Your task to perform on an android device: toggle wifi Image 0: 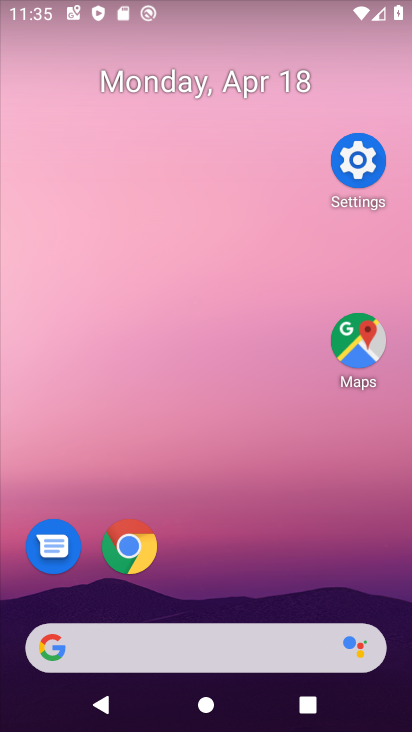
Step 0: drag from (204, 275) to (162, 175)
Your task to perform on an android device: toggle wifi Image 1: 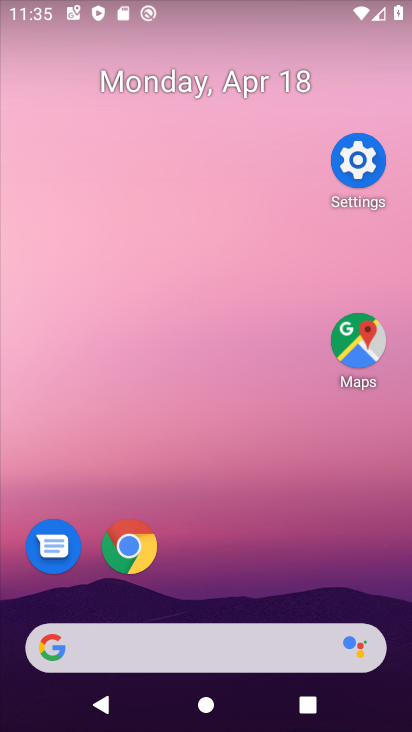
Step 1: drag from (265, 557) to (118, 298)
Your task to perform on an android device: toggle wifi Image 2: 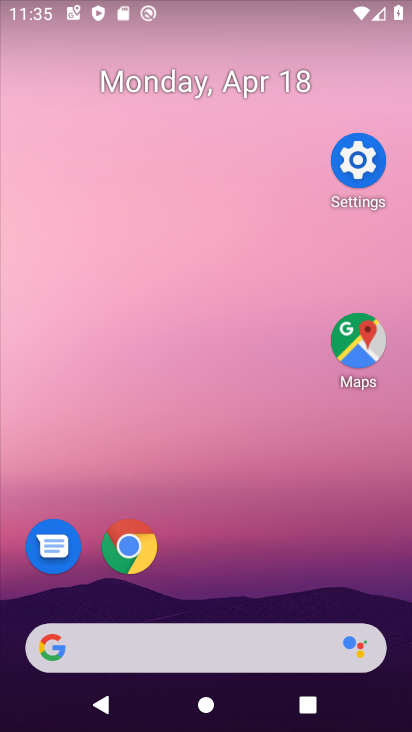
Step 2: click (152, 114)
Your task to perform on an android device: toggle wifi Image 3: 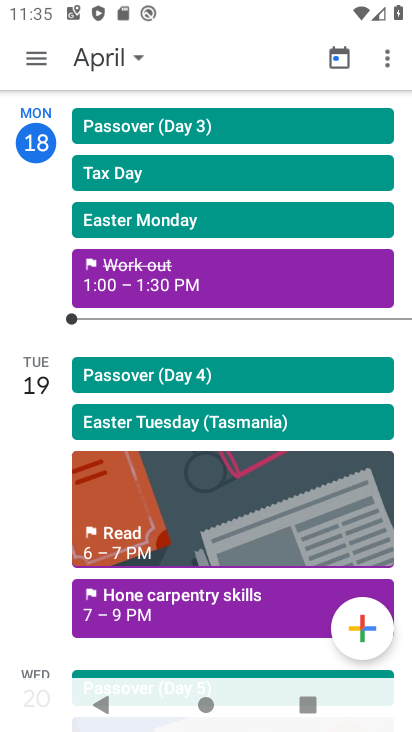
Step 3: press home button
Your task to perform on an android device: toggle wifi Image 4: 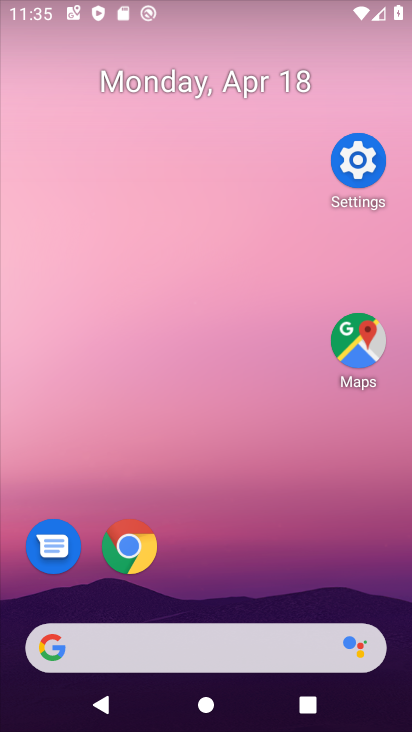
Step 4: drag from (295, 552) to (162, 285)
Your task to perform on an android device: toggle wifi Image 5: 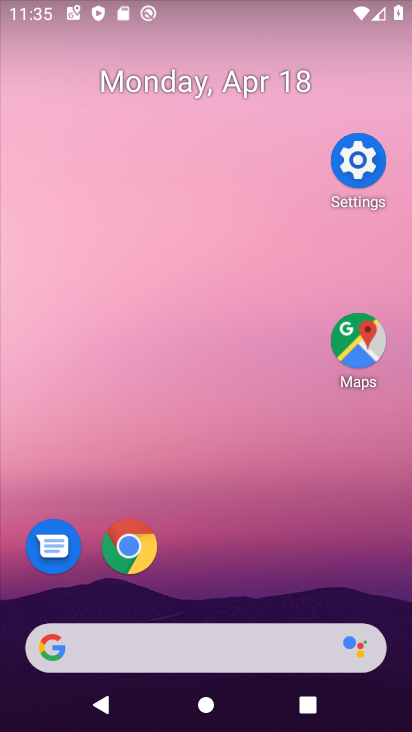
Step 5: click (147, 355)
Your task to perform on an android device: toggle wifi Image 6: 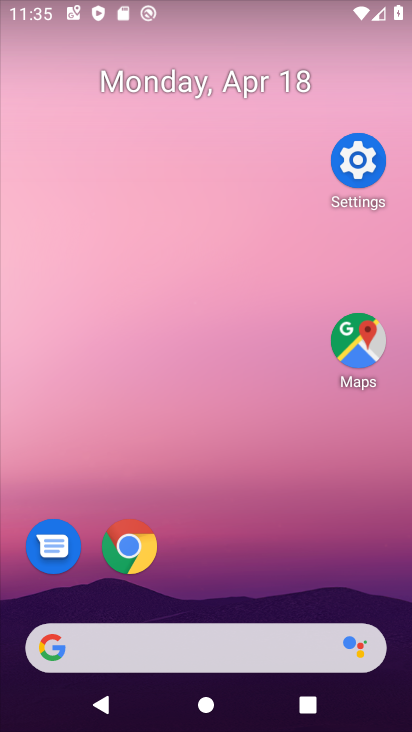
Step 6: drag from (349, 596) to (204, 284)
Your task to perform on an android device: toggle wifi Image 7: 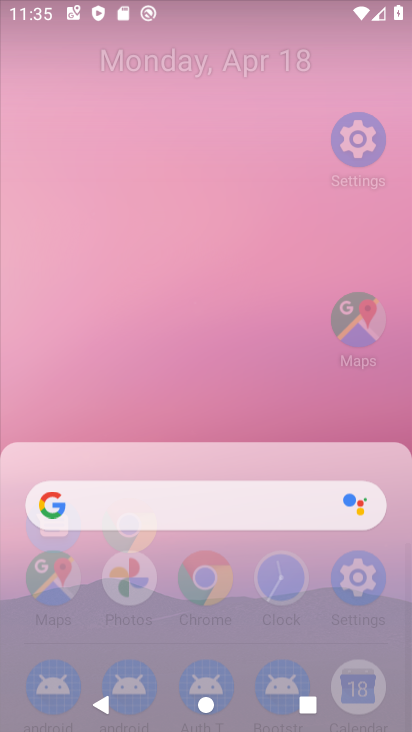
Step 7: drag from (356, 535) to (172, 139)
Your task to perform on an android device: toggle wifi Image 8: 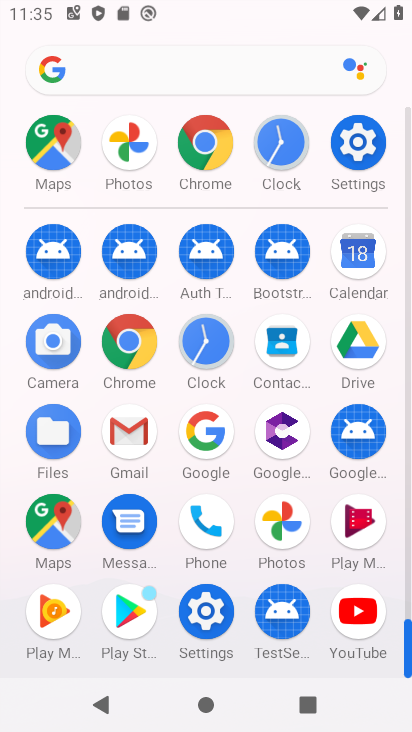
Step 8: click (352, 131)
Your task to perform on an android device: toggle wifi Image 9: 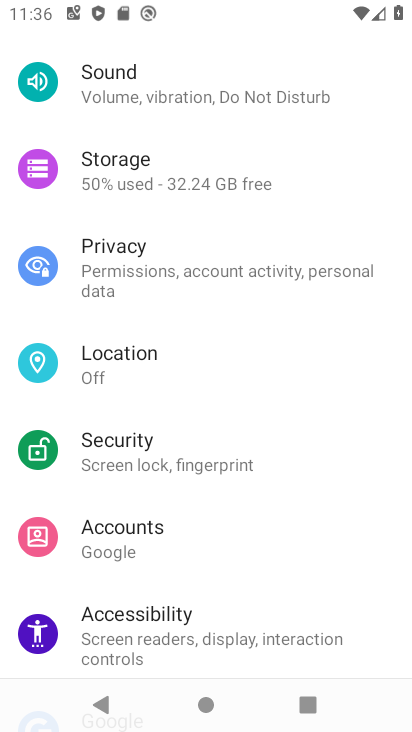
Step 9: drag from (206, 508) to (223, 286)
Your task to perform on an android device: toggle wifi Image 10: 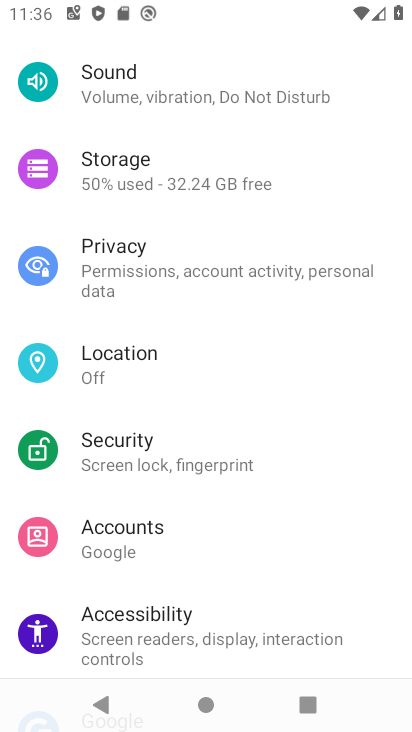
Step 10: drag from (148, 515) to (124, 413)
Your task to perform on an android device: toggle wifi Image 11: 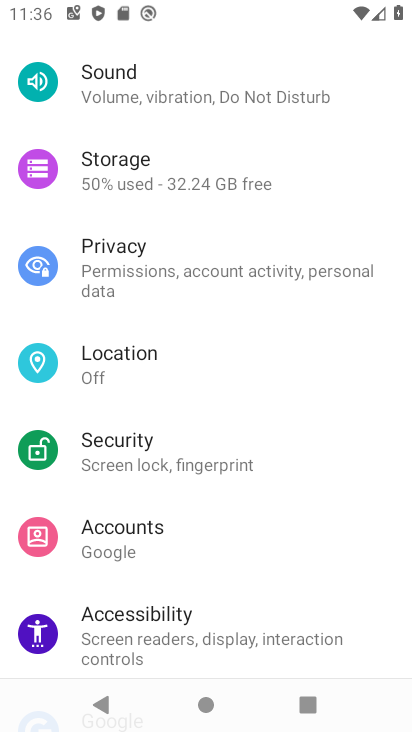
Step 11: drag from (138, 150) to (335, 626)
Your task to perform on an android device: toggle wifi Image 12: 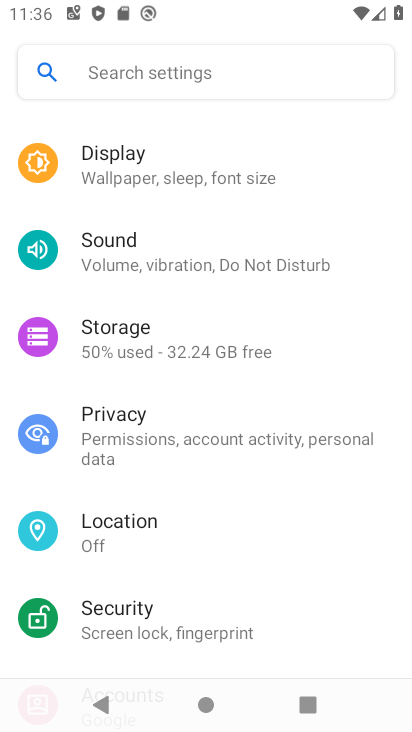
Step 12: drag from (302, 568) to (231, 447)
Your task to perform on an android device: toggle wifi Image 13: 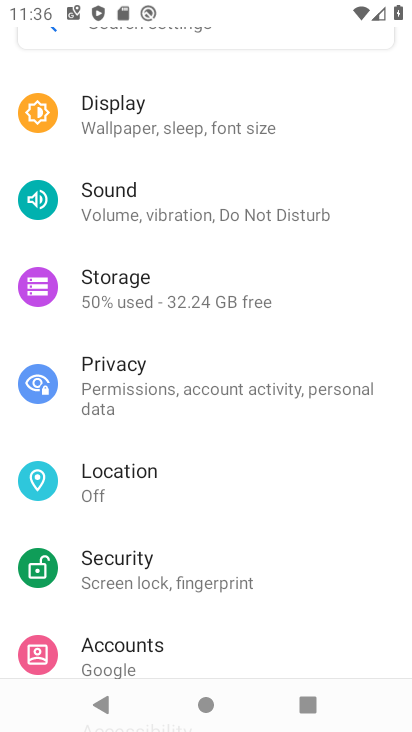
Step 13: drag from (131, 117) to (162, 664)
Your task to perform on an android device: toggle wifi Image 14: 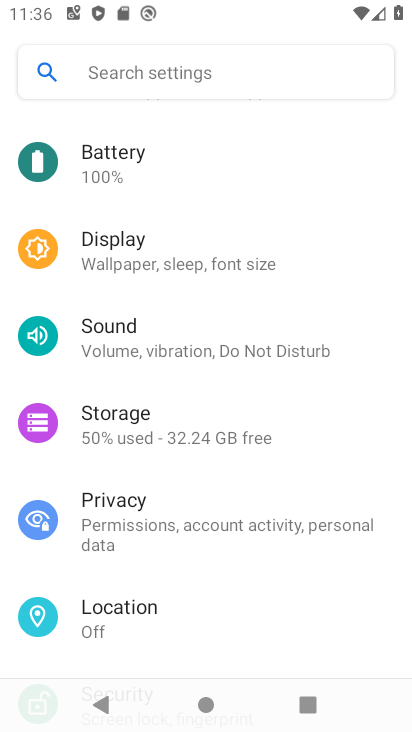
Step 14: drag from (254, 425) to (267, 493)
Your task to perform on an android device: toggle wifi Image 15: 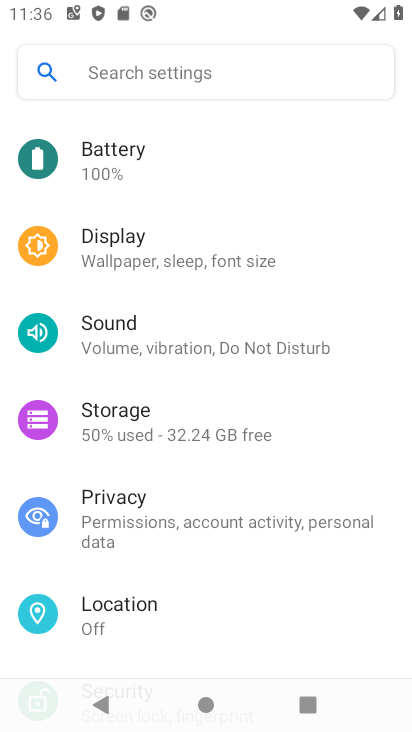
Step 15: drag from (291, 427) to (301, 612)
Your task to perform on an android device: toggle wifi Image 16: 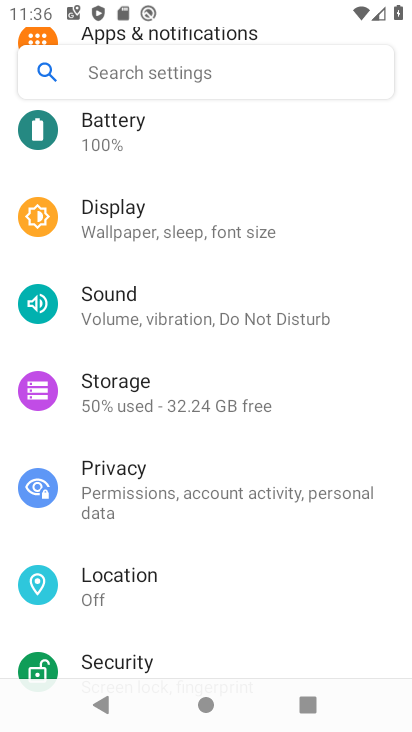
Step 16: drag from (178, 238) to (269, 727)
Your task to perform on an android device: toggle wifi Image 17: 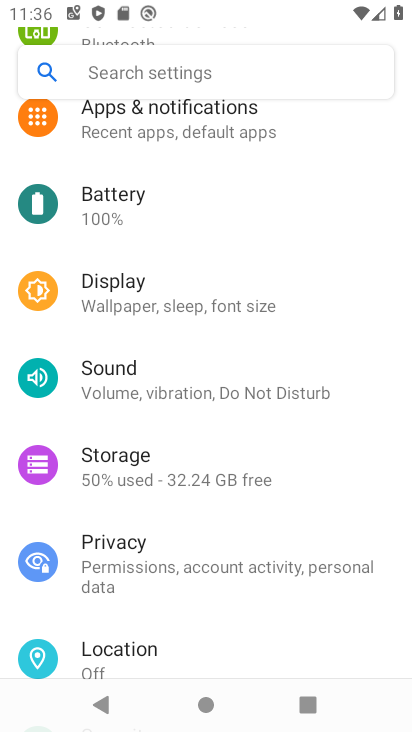
Step 17: drag from (251, 473) to (323, 716)
Your task to perform on an android device: toggle wifi Image 18: 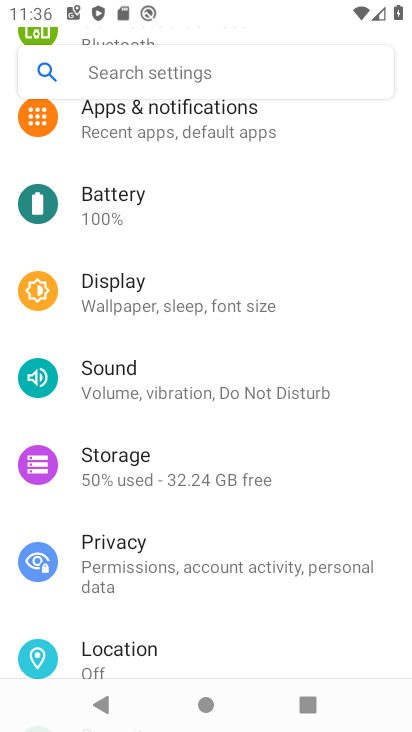
Step 18: click (196, 123)
Your task to perform on an android device: toggle wifi Image 19: 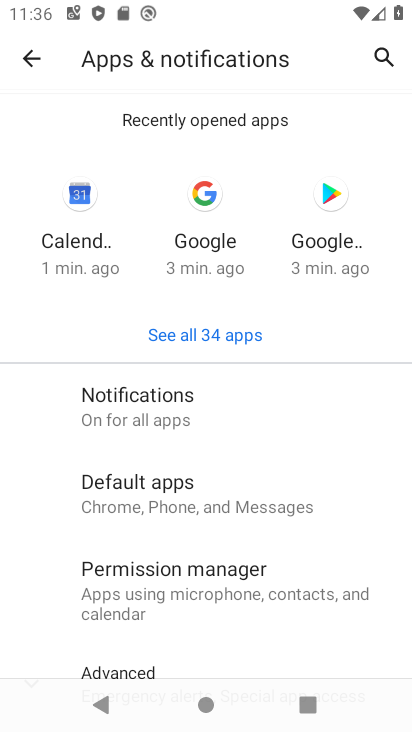
Step 19: click (38, 62)
Your task to perform on an android device: toggle wifi Image 20: 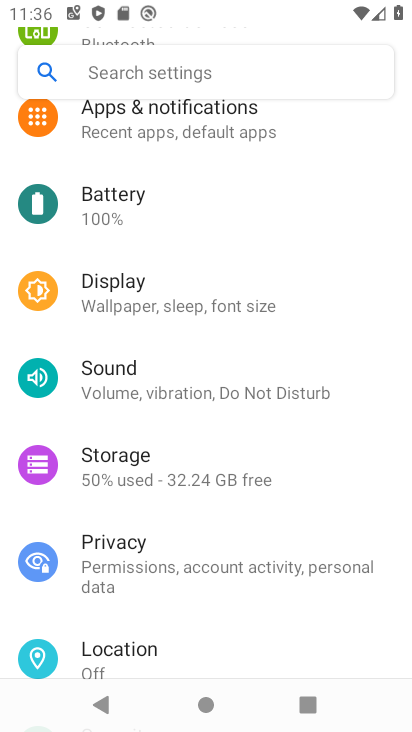
Step 20: drag from (206, 360) to (239, 549)
Your task to perform on an android device: toggle wifi Image 21: 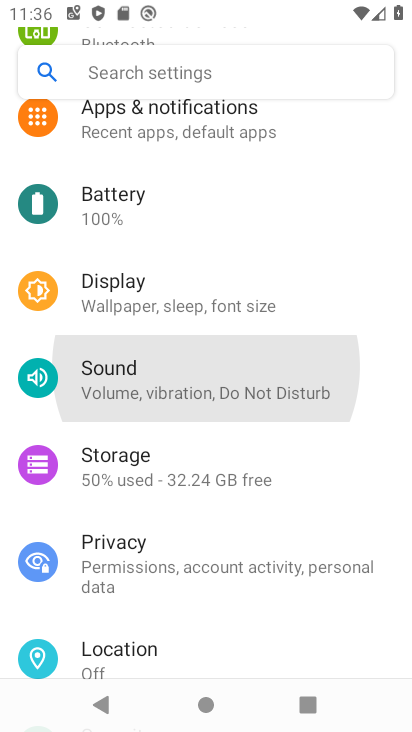
Step 21: drag from (183, 304) to (228, 580)
Your task to perform on an android device: toggle wifi Image 22: 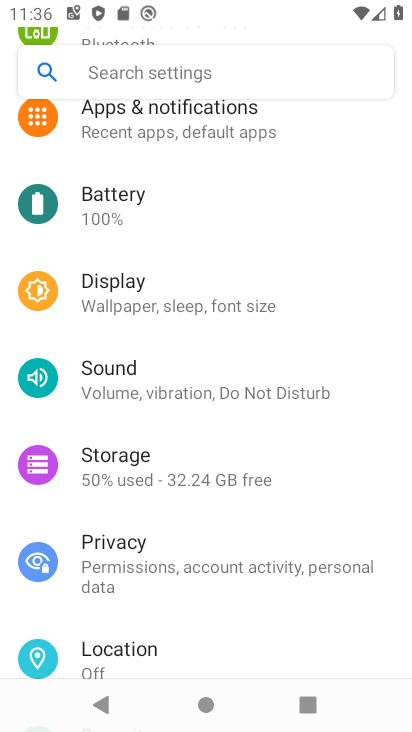
Step 22: drag from (162, 236) to (269, 512)
Your task to perform on an android device: toggle wifi Image 23: 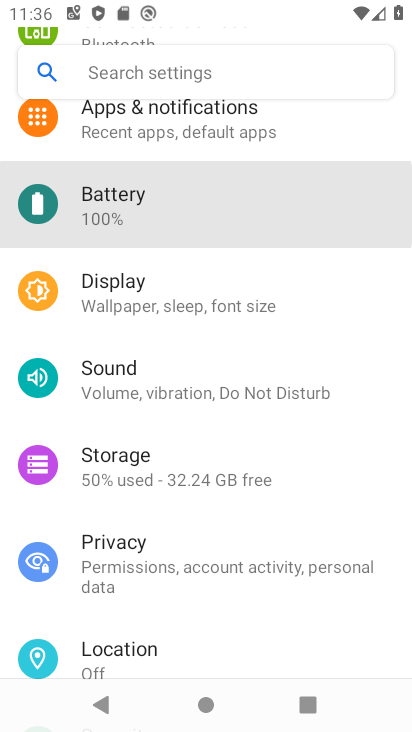
Step 23: drag from (309, 525) to (321, 562)
Your task to perform on an android device: toggle wifi Image 24: 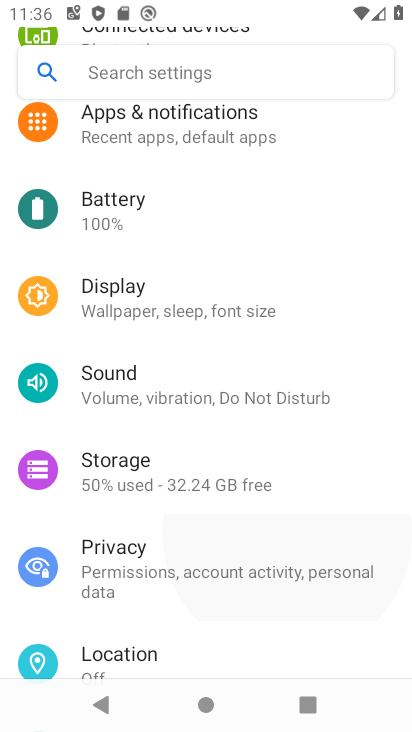
Step 24: click (267, 526)
Your task to perform on an android device: toggle wifi Image 25: 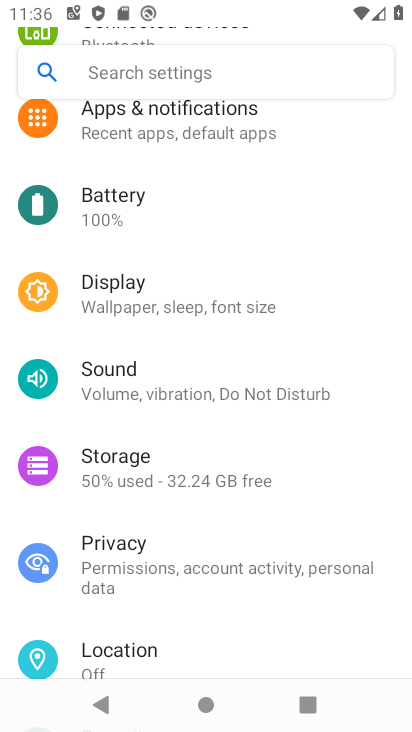
Step 25: drag from (275, 498) to (281, 657)
Your task to perform on an android device: toggle wifi Image 26: 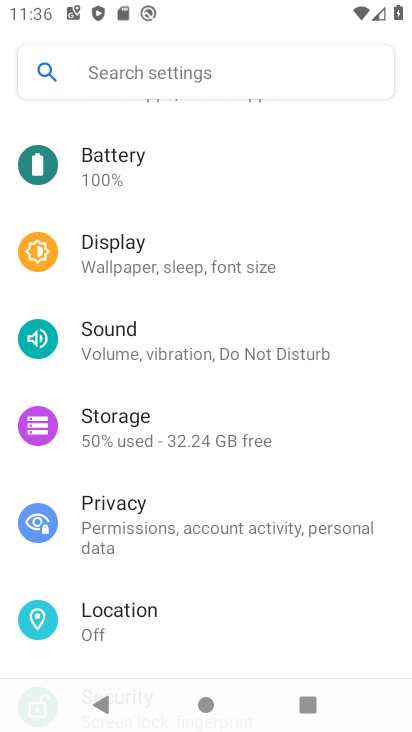
Step 26: drag from (202, 299) to (276, 527)
Your task to perform on an android device: toggle wifi Image 27: 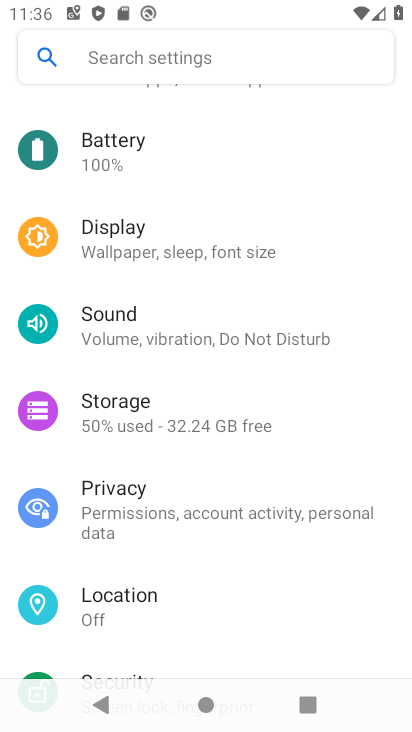
Step 27: drag from (232, 314) to (327, 531)
Your task to perform on an android device: toggle wifi Image 28: 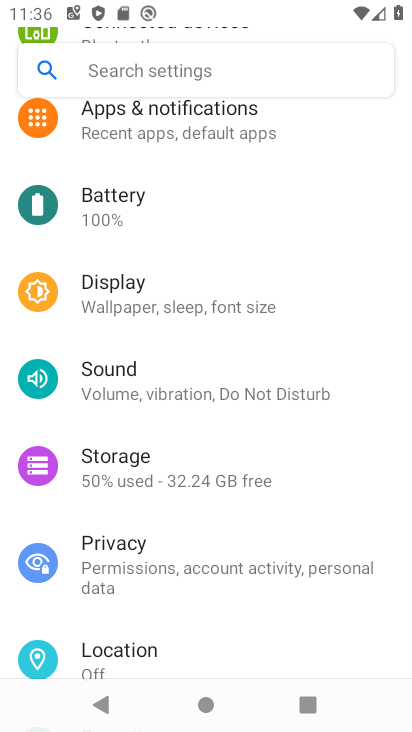
Step 28: drag from (298, 450) to (316, 587)
Your task to perform on an android device: toggle wifi Image 29: 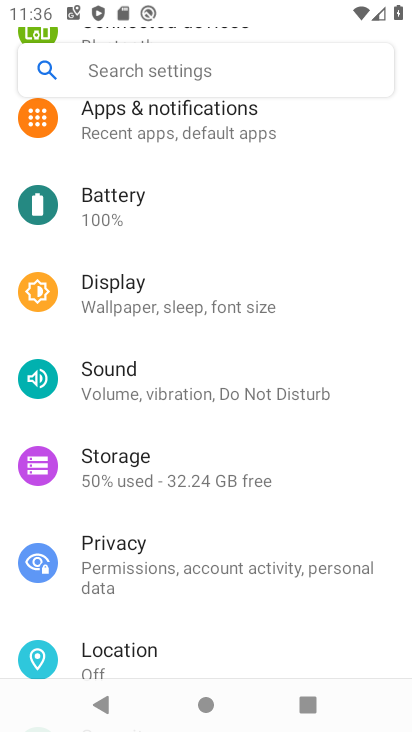
Step 29: drag from (184, 181) to (300, 565)
Your task to perform on an android device: toggle wifi Image 30: 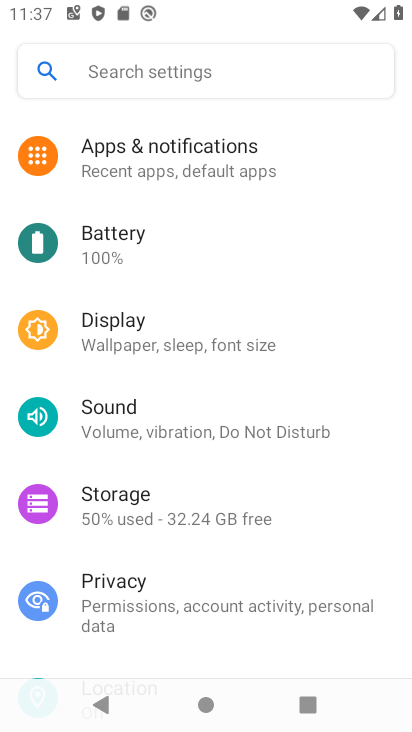
Step 30: drag from (207, 221) to (249, 502)
Your task to perform on an android device: toggle wifi Image 31: 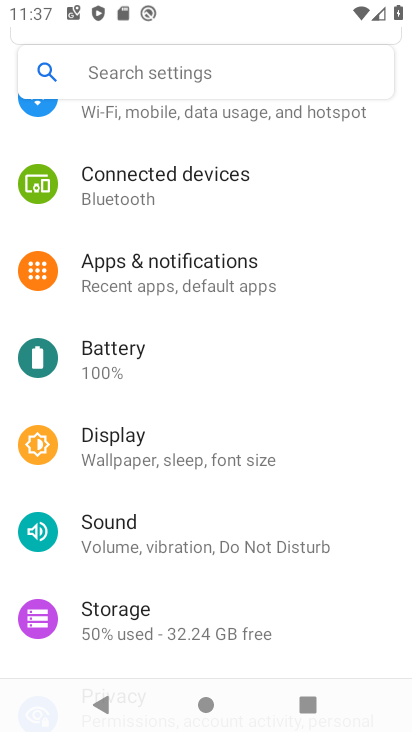
Step 31: drag from (166, 161) to (143, 485)
Your task to perform on an android device: toggle wifi Image 32: 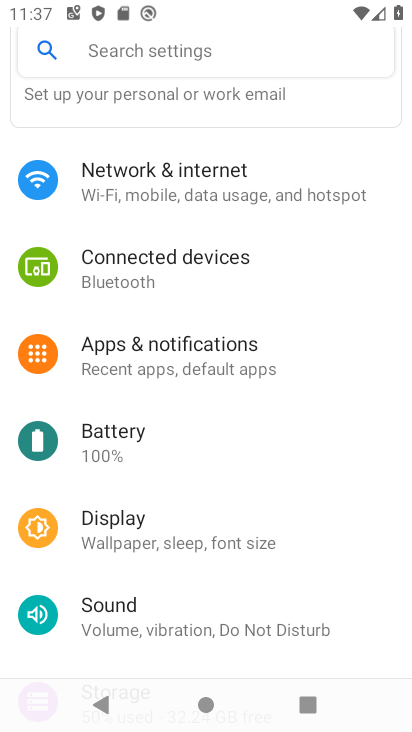
Step 32: click (170, 170)
Your task to perform on an android device: toggle wifi Image 33: 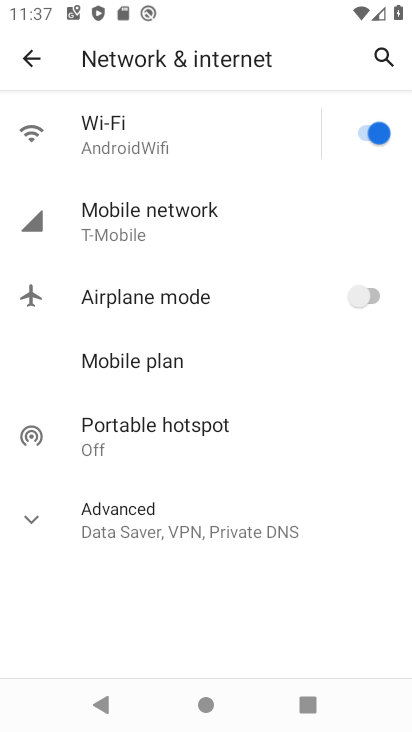
Step 33: click (383, 130)
Your task to perform on an android device: toggle wifi Image 34: 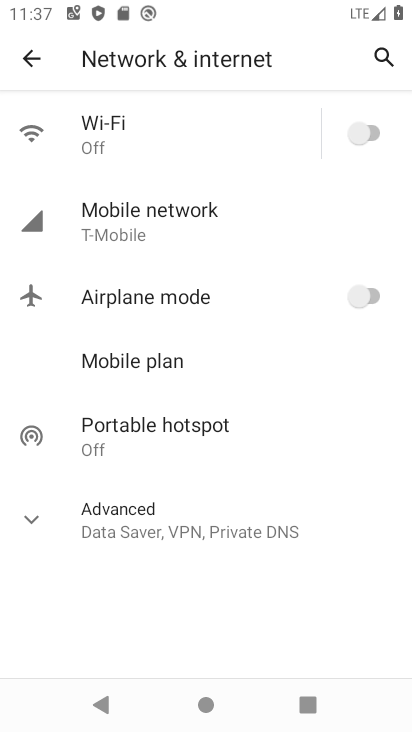
Step 34: task complete